Your task to perform on an android device: Go to calendar. Show me events next week Image 0: 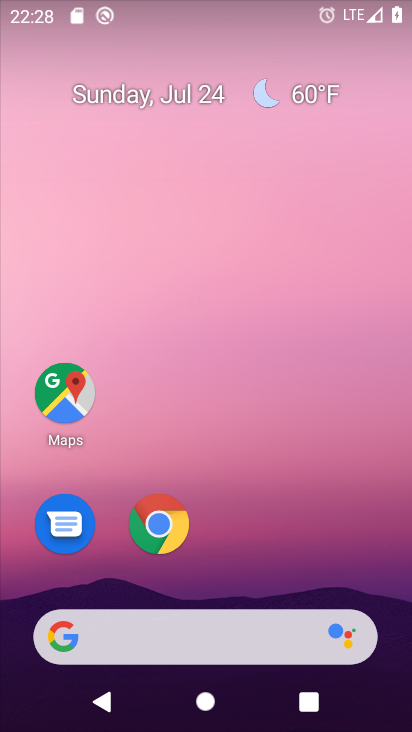
Step 0: drag from (293, 551) to (397, 97)
Your task to perform on an android device: Go to calendar. Show me events next week Image 1: 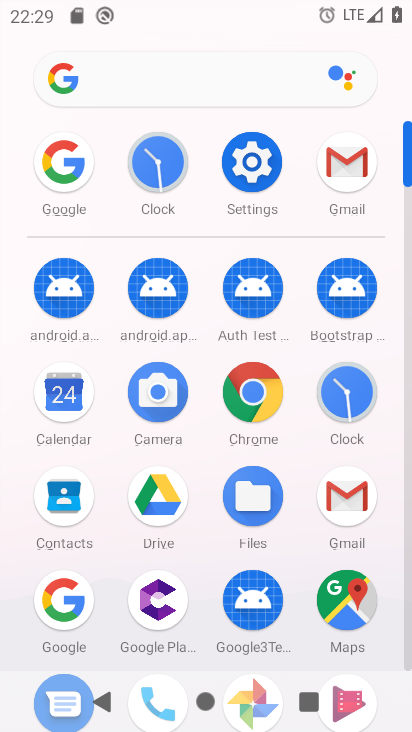
Step 1: click (65, 392)
Your task to perform on an android device: Go to calendar. Show me events next week Image 2: 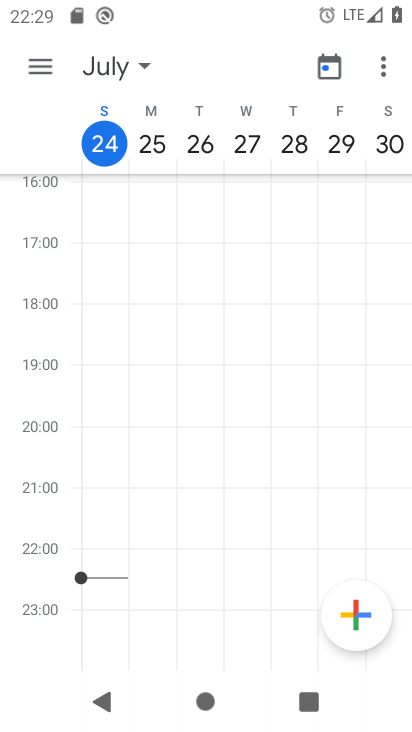
Step 2: task complete